Your task to perform on an android device: Add "macbook pro" to the cart on amazon, then select checkout. Image 0: 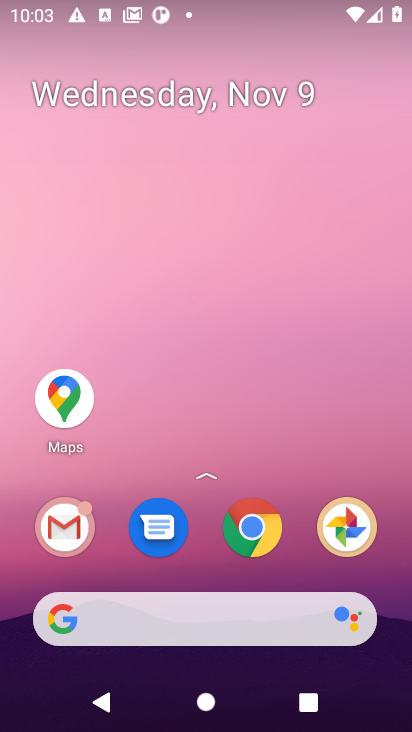
Step 0: click (251, 536)
Your task to perform on an android device: Add "macbook pro" to the cart on amazon, then select checkout. Image 1: 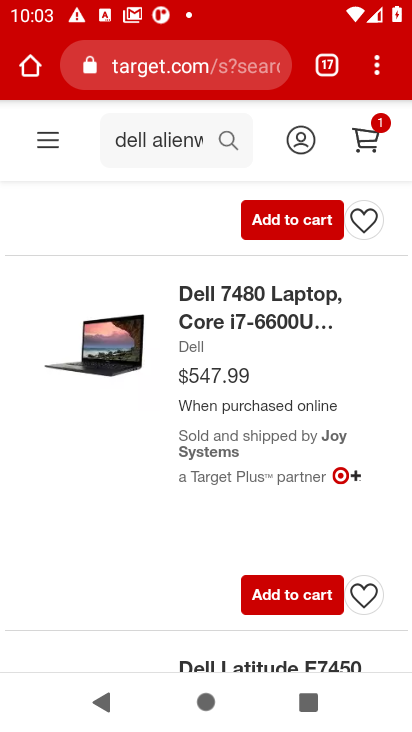
Step 1: click (163, 71)
Your task to perform on an android device: Add "macbook pro" to the cart on amazon, then select checkout. Image 2: 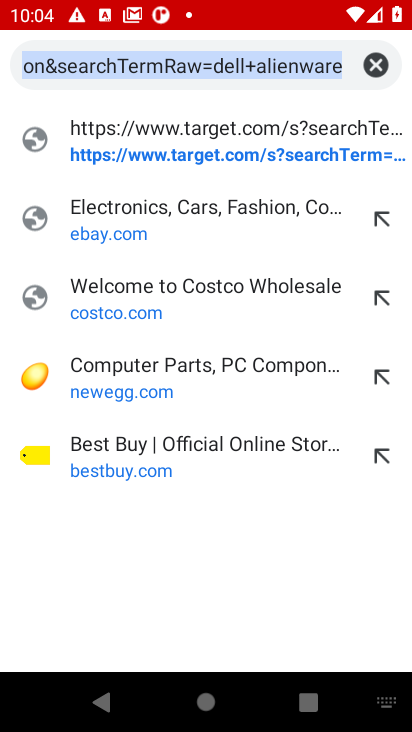
Step 2: type "amazon.com"
Your task to perform on an android device: Add "macbook pro" to the cart on amazon, then select checkout. Image 3: 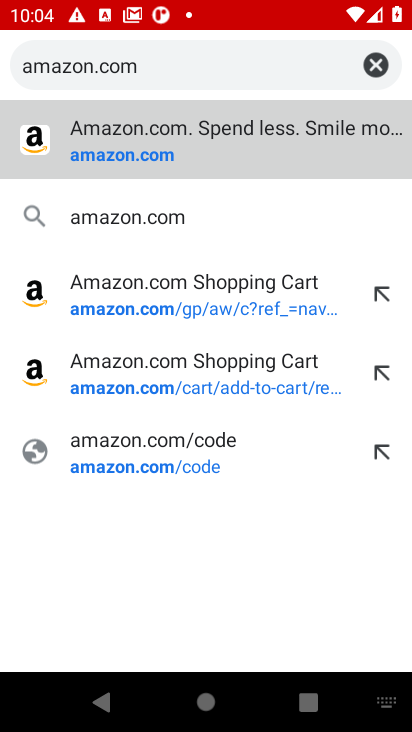
Step 3: click (116, 163)
Your task to perform on an android device: Add "macbook pro" to the cart on amazon, then select checkout. Image 4: 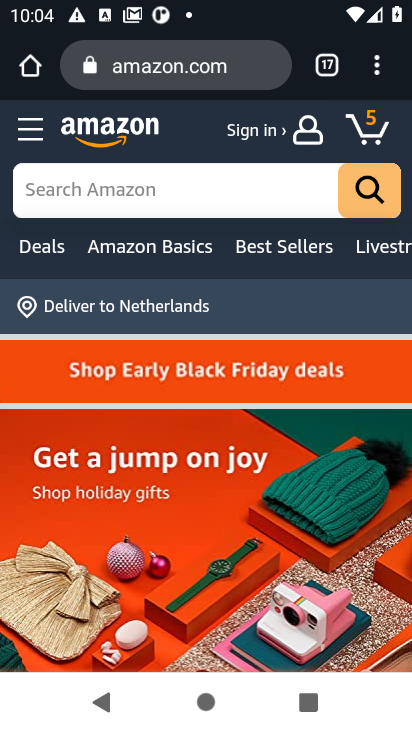
Step 4: click (88, 199)
Your task to perform on an android device: Add "macbook pro" to the cart on amazon, then select checkout. Image 5: 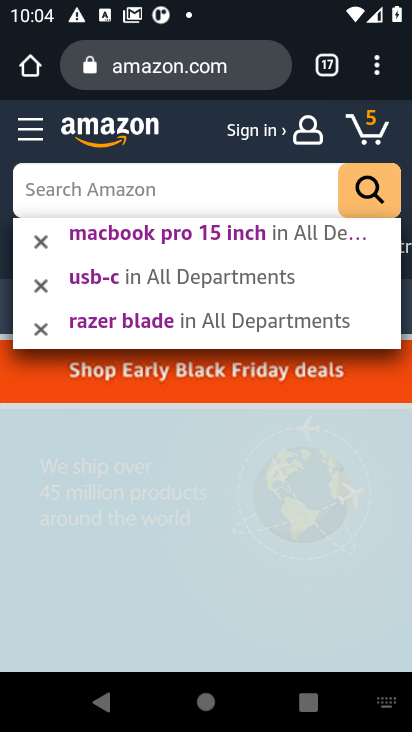
Step 5: type "macbook pro"
Your task to perform on an android device: Add "macbook pro" to the cart on amazon, then select checkout. Image 6: 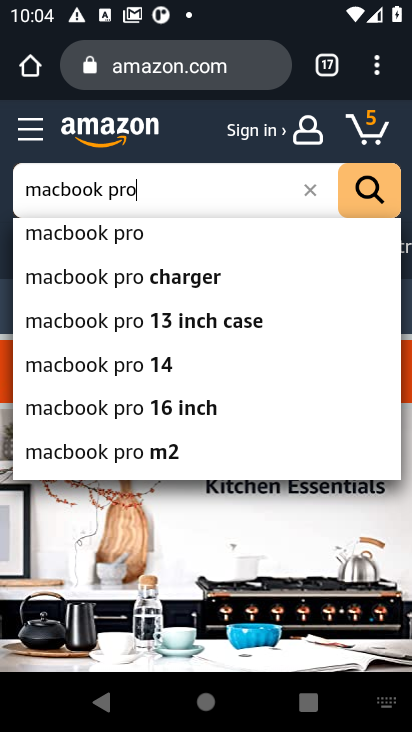
Step 6: click (136, 230)
Your task to perform on an android device: Add "macbook pro" to the cart on amazon, then select checkout. Image 7: 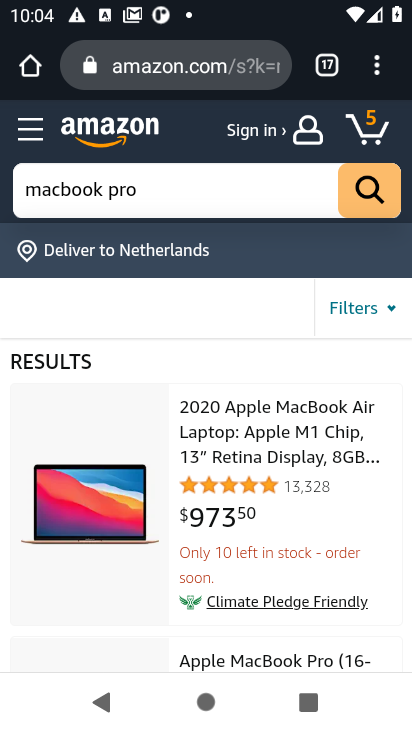
Step 7: drag from (134, 563) to (134, 259)
Your task to perform on an android device: Add "macbook pro" to the cart on amazon, then select checkout. Image 8: 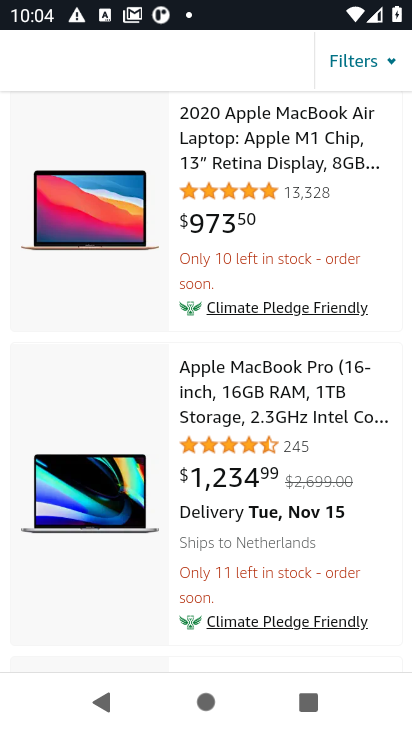
Step 8: click (118, 499)
Your task to perform on an android device: Add "macbook pro" to the cart on amazon, then select checkout. Image 9: 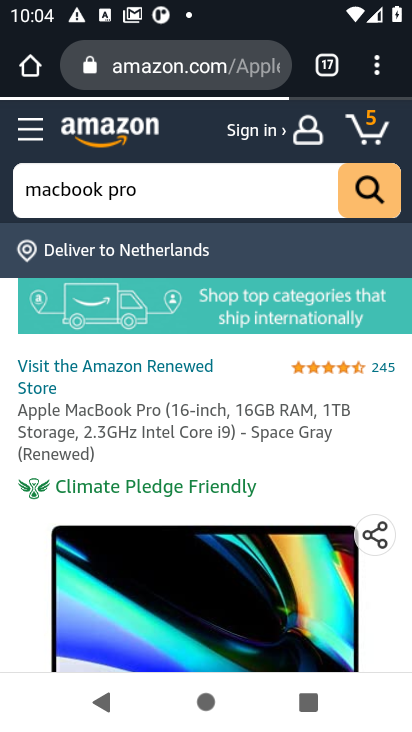
Step 9: drag from (145, 568) to (117, 265)
Your task to perform on an android device: Add "macbook pro" to the cart on amazon, then select checkout. Image 10: 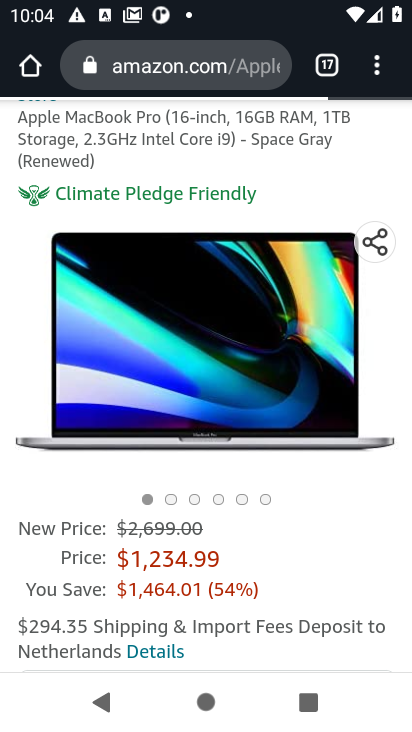
Step 10: drag from (129, 535) to (104, 188)
Your task to perform on an android device: Add "macbook pro" to the cart on amazon, then select checkout. Image 11: 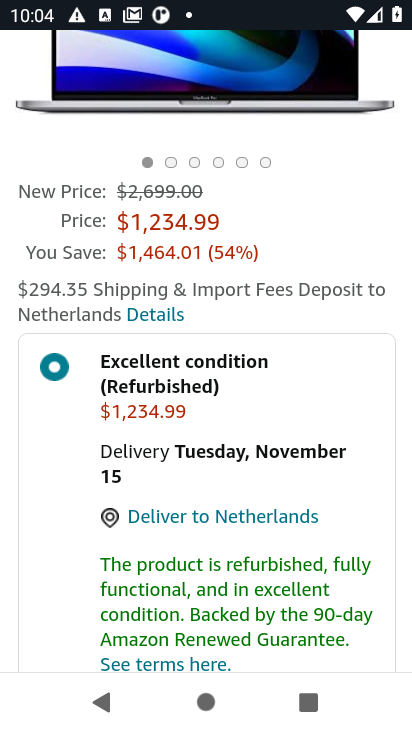
Step 11: drag from (130, 426) to (115, 160)
Your task to perform on an android device: Add "macbook pro" to the cart on amazon, then select checkout. Image 12: 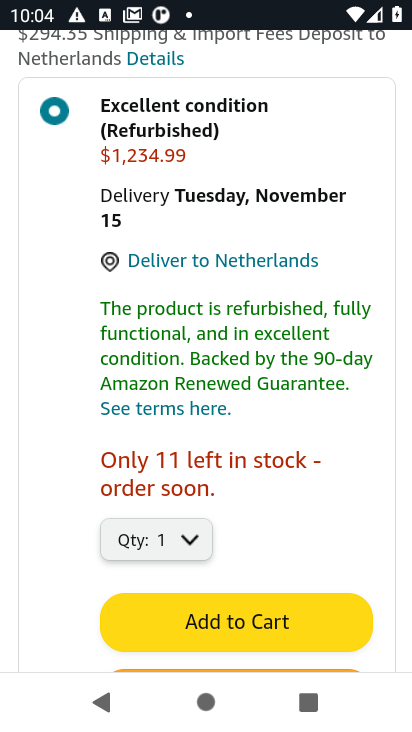
Step 12: click (213, 616)
Your task to perform on an android device: Add "macbook pro" to the cart on amazon, then select checkout. Image 13: 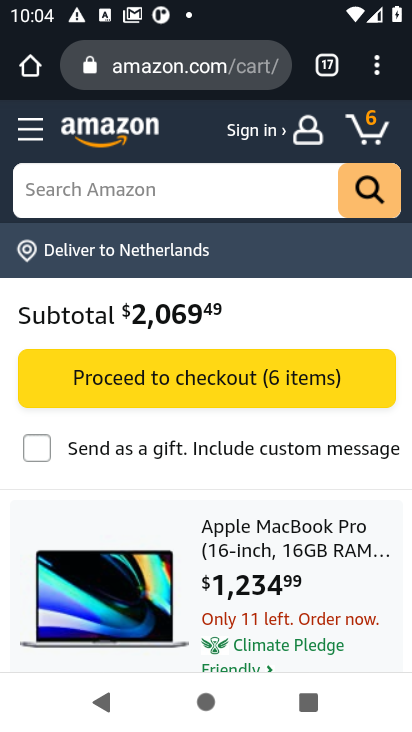
Step 13: click (245, 361)
Your task to perform on an android device: Add "macbook pro" to the cart on amazon, then select checkout. Image 14: 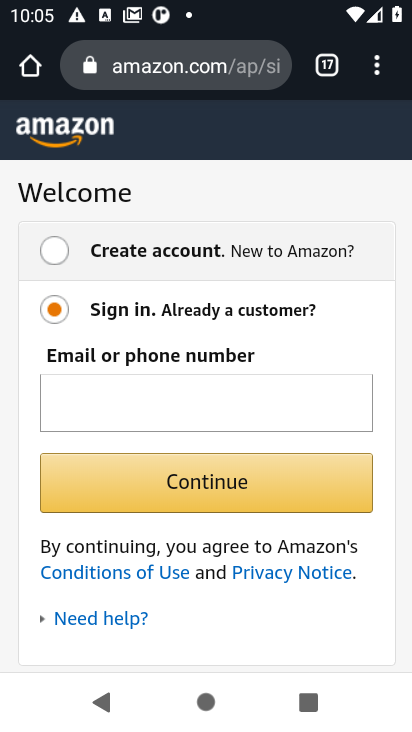
Step 14: task complete